Your task to perform on an android device: change timer sound Image 0: 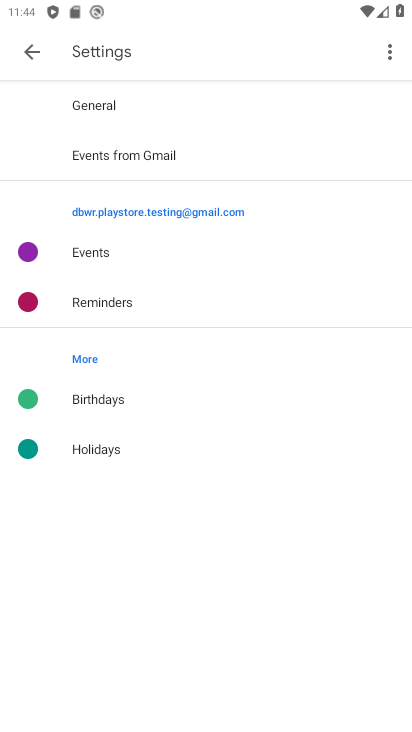
Step 0: press home button
Your task to perform on an android device: change timer sound Image 1: 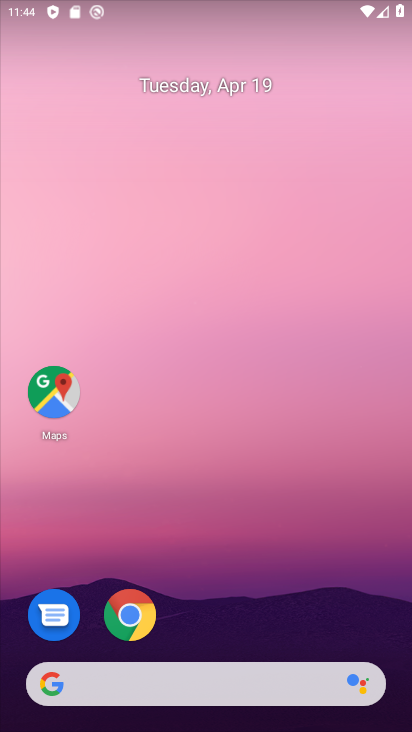
Step 1: drag from (243, 537) to (264, 151)
Your task to perform on an android device: change timer sound Image 2: 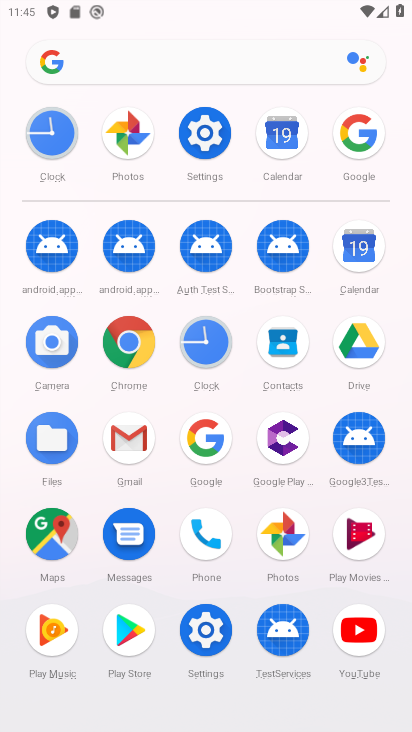
Step 2: click (205, 348)
Your task to perform on an android device: change timer sound Image 3: 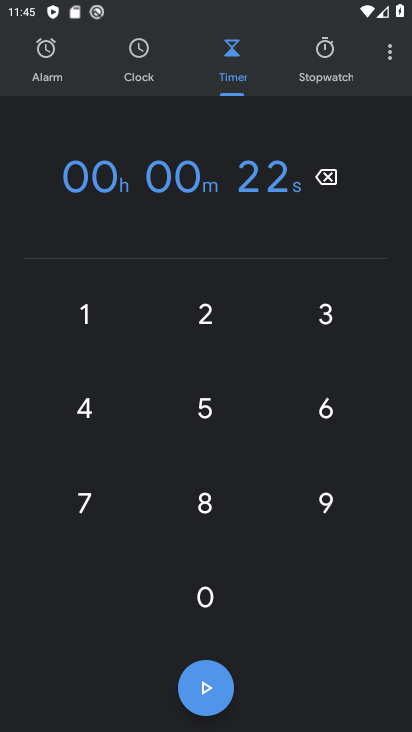
Step 3: click (385, 46)
Your task to perform on an android device: change timer sound Image 4: 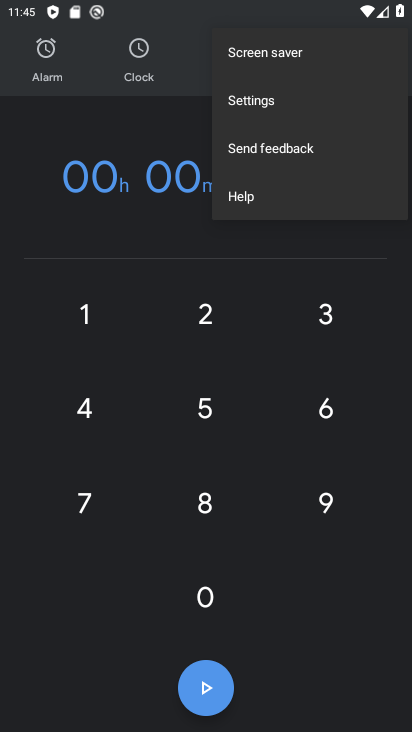
Step 4: click (243, 96)
Your task to perform on an android device: change timer sound Image 5: 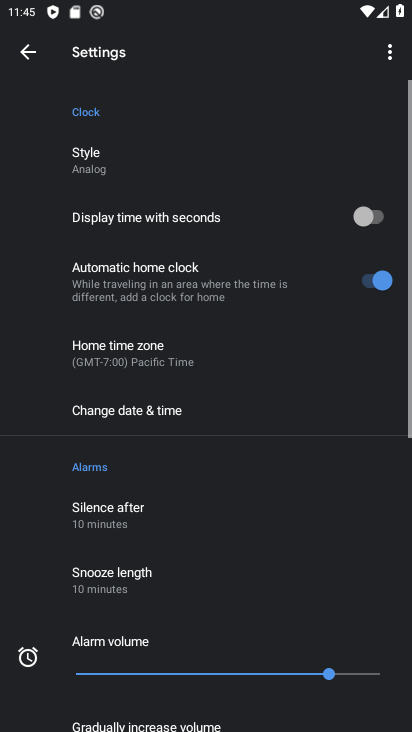
Step 5: drag from (157, 480) to (195, 87)
Your task to perform on an android device: change timer sound Image 6: 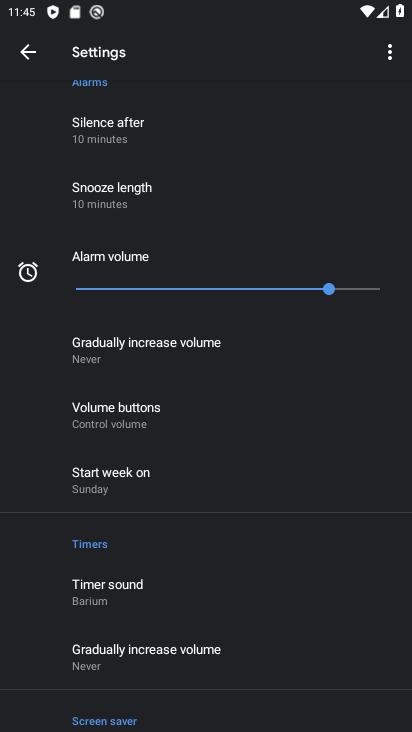
Step 6: click (120, 600)
Your task to perform on an android device: change timer sound Image 7: 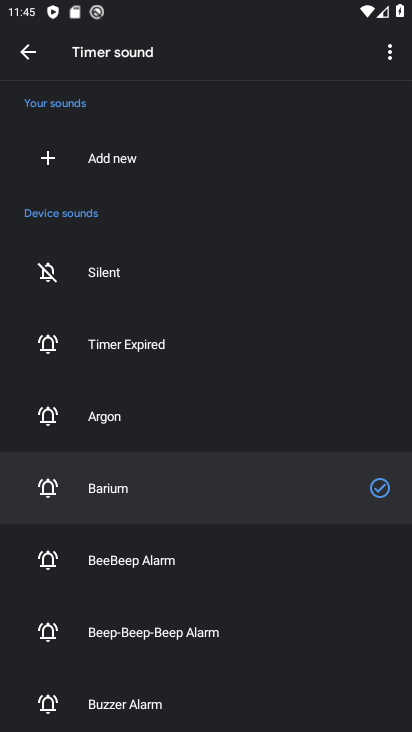
Step 7: click (185, 562)
Your task to perform on an android device: change timer sound Image 8: 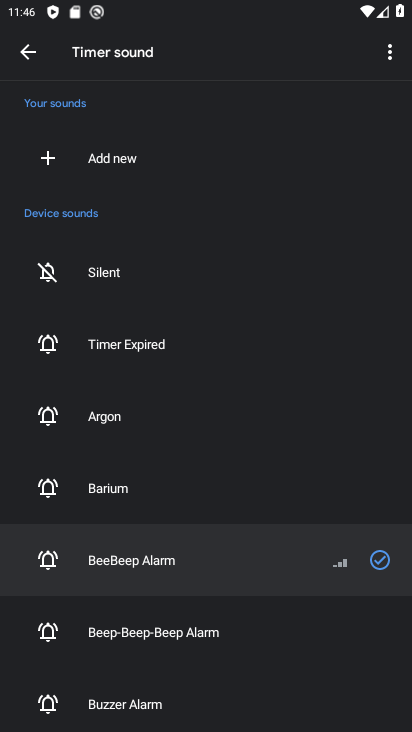
Step 8: task complete